Your task to perform on an android device: Is it going to rain this weekend? Image 0: 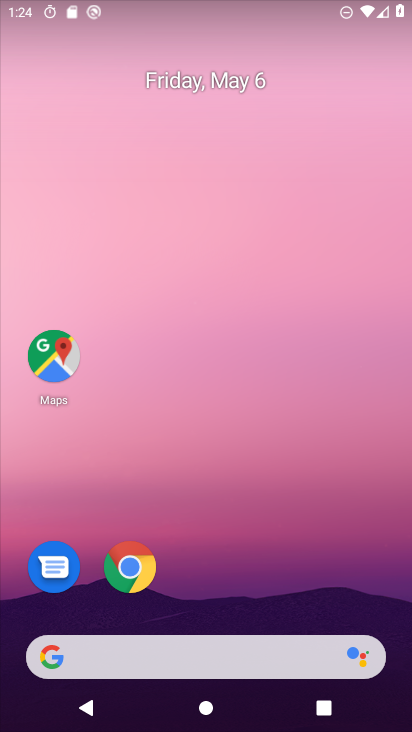
Step 0: drag from (294, 688) to (375, 188)
Your task to perform on an android device: Is it going to rain this weekend? Image 1: 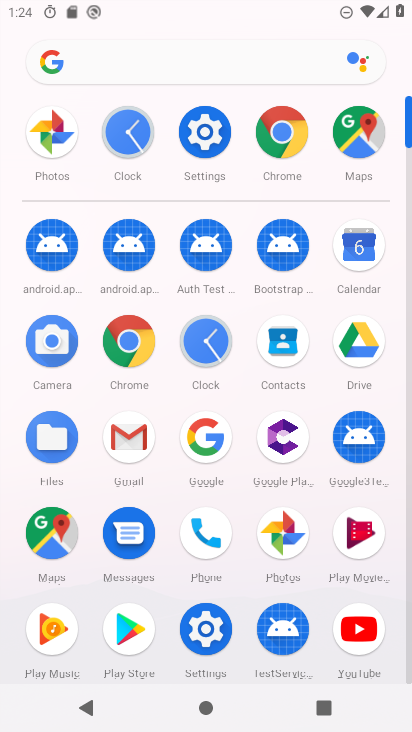
Step 1: click (222, 73)
Your task to perform on an android device: Is it going to rain this weekend? Image 2: 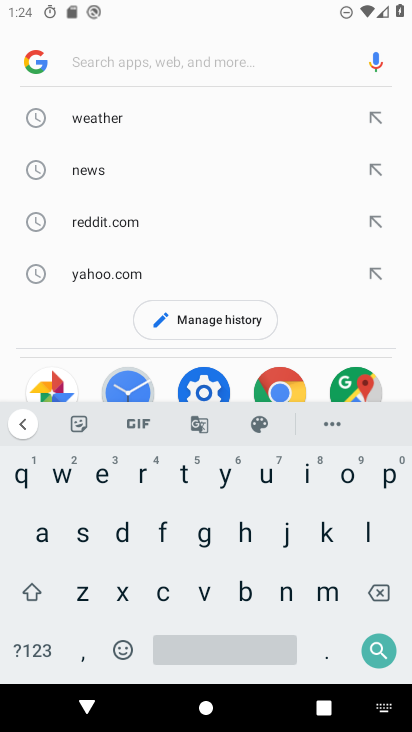
Step 2: click (122, 116)
Your task to perform on an android device: Is it going to rain this weekend? Image 3: 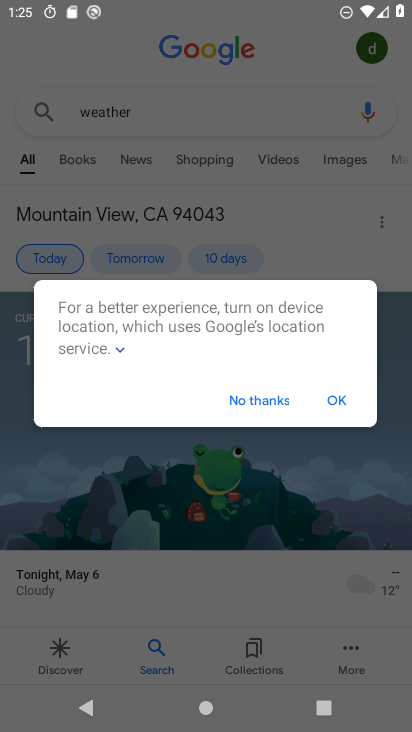
Step 3: click (257, 407)
Your task to perform on an android device: Is it going to rain this weekend? Image 4: 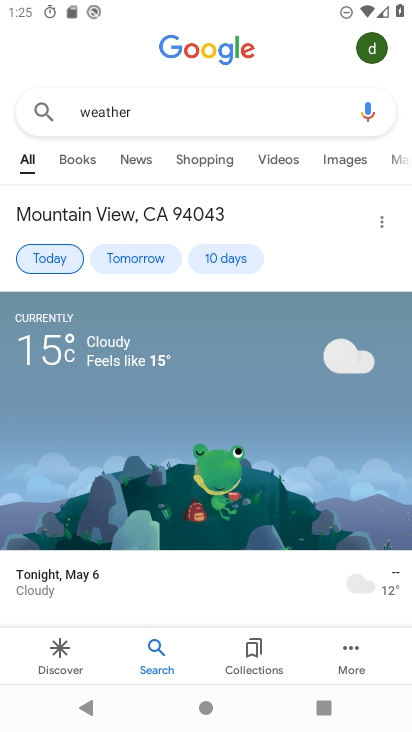
Step 4: click (228, 252)
Your task to perform on an android device: Is it going to rain this weekend? Image 5: 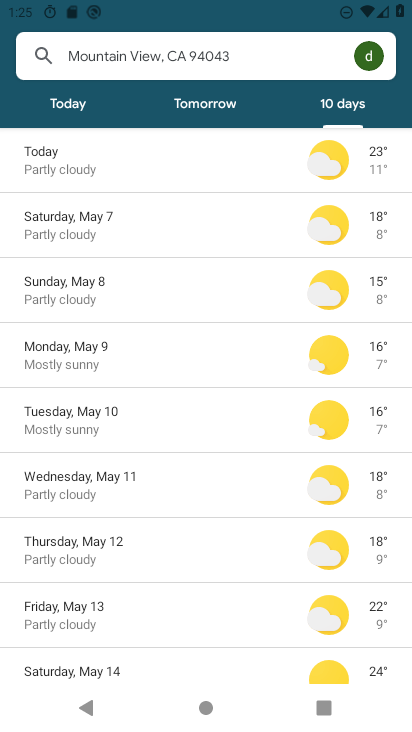
Step 5: task complete